Your task to perform on an android device: toggle notifications settings in the gmail app Image 0: 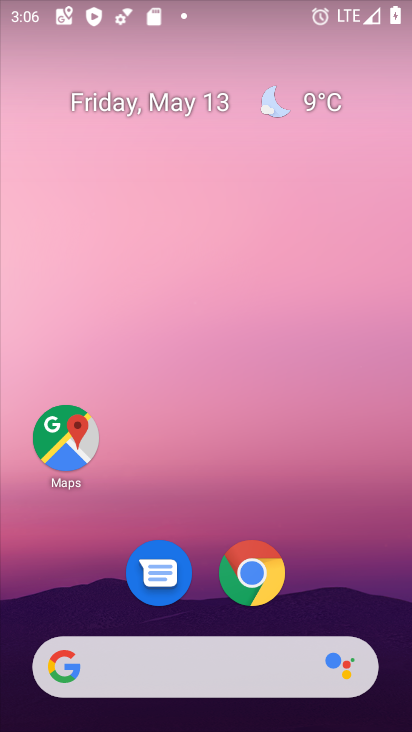
Step 0: drag from (343, 577) to (269, 174)
Your task to perform on an android device: toggle notifications settings in the gmail app Image 1: 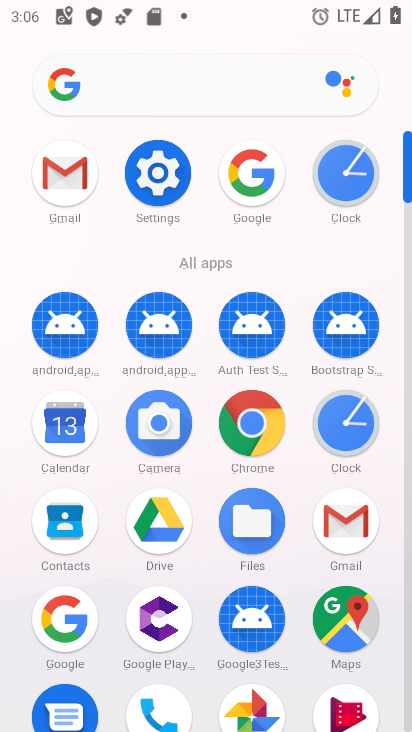
Step 1: drag from (297, 490) to (307, 320)
Your task to perform on an android device: toggle notifications settings in the gmail app Image 2: 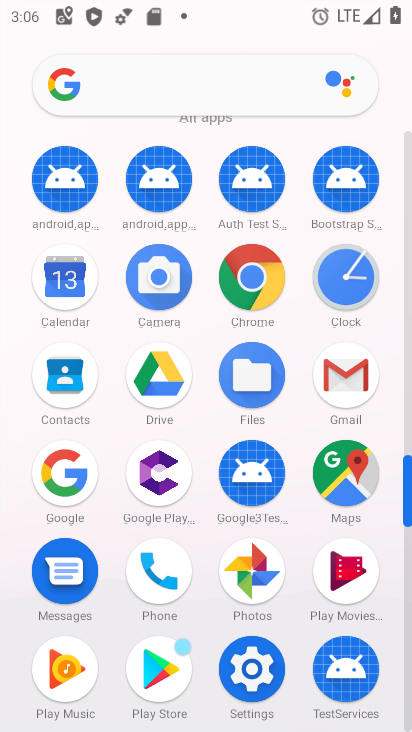
Step 2: click (345, 379)
Your task to perform on an android device: toggle notifications settings in the gmail app Image 3: 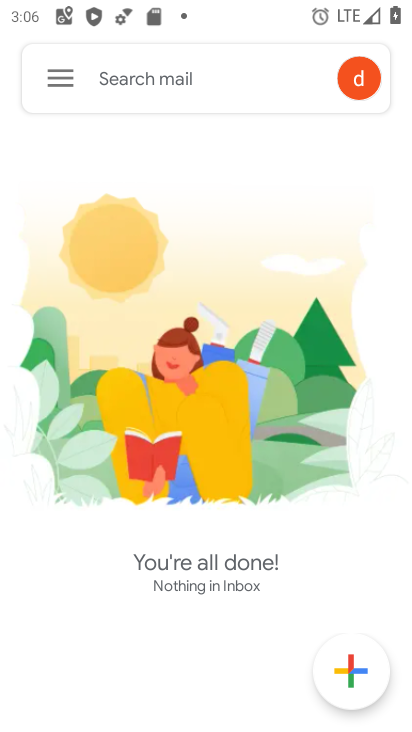
Step 3: click (64, 78)
Your task to perform on an android device: toggle notifications settings in the gmail app Image 4: 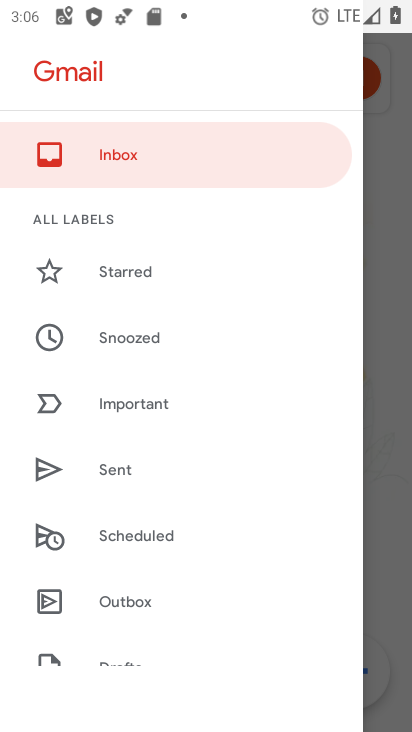
Step 4: drag from (137, 442) to (196, 331)
Your task to perform on an android device: toggle notifications settings in the gmail app Image 5: 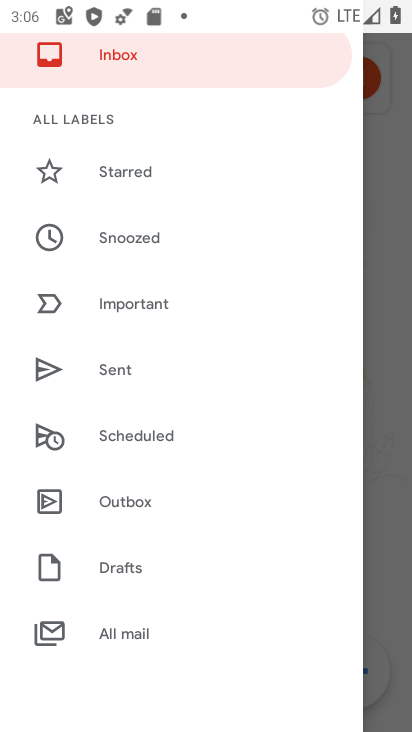
Step 5: drag from (129, 467) to (209, 358)
Your task to perform on an android device: toggle notifications settings in the gmail app Image 6: 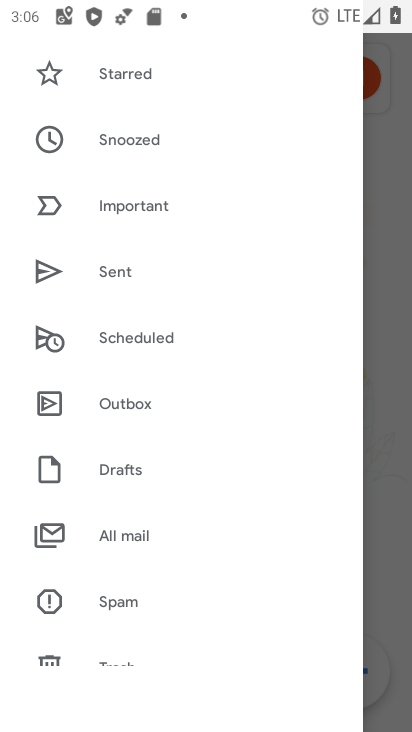
Step 6: drag from (129, 433) to (157, 348)
Your task to perform on an android device: toggle notifications settings in the gmail app Image 7: 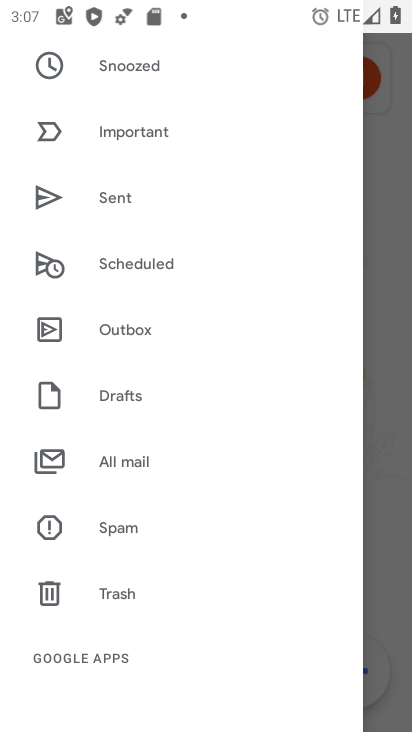
Step 7: drag from (113, 428) to (159, 353)
Your task to perform on an android device: toggle notifications settings in the gmail app Image 8: 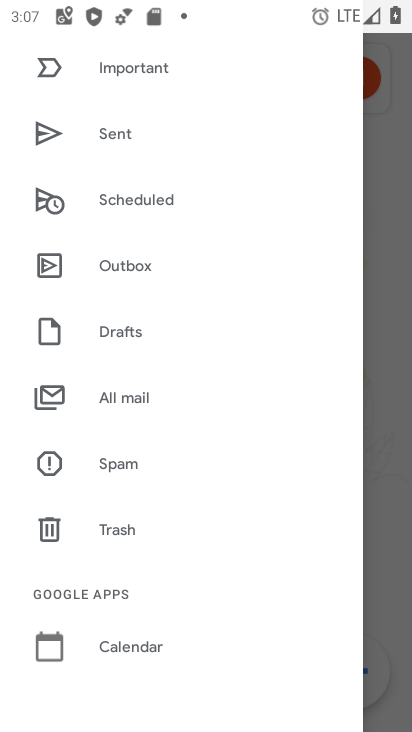
Step 8: drag from (77, 506) to (171, 353)
Your task to perform on an android device: toggle notifications settings in the gmail app Image 9: 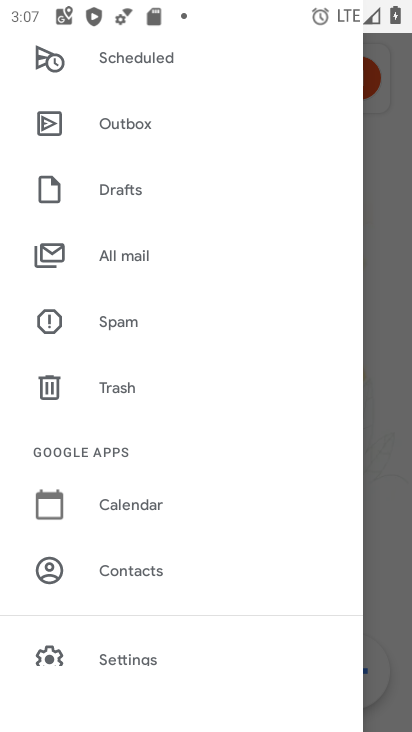
Step 9: drag from (100, 543) to (181, 391)
Your task to perform on an android device: toggle notifications settings in the gmail app Image 10: 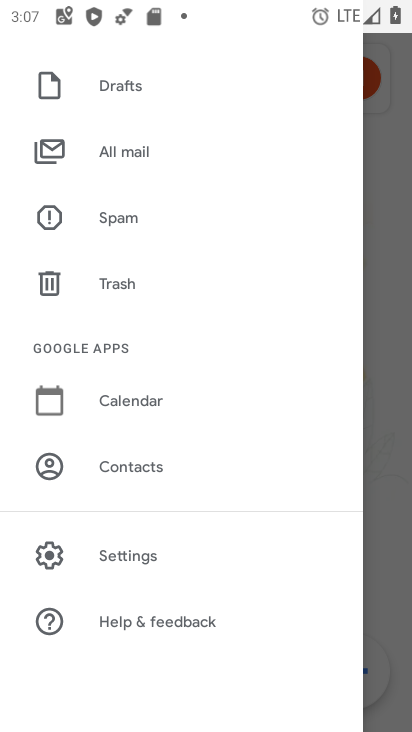
Step 10: click (137, 548)
Your task to perform on an android device: toggle notifications settings in the gmail app Image 11: 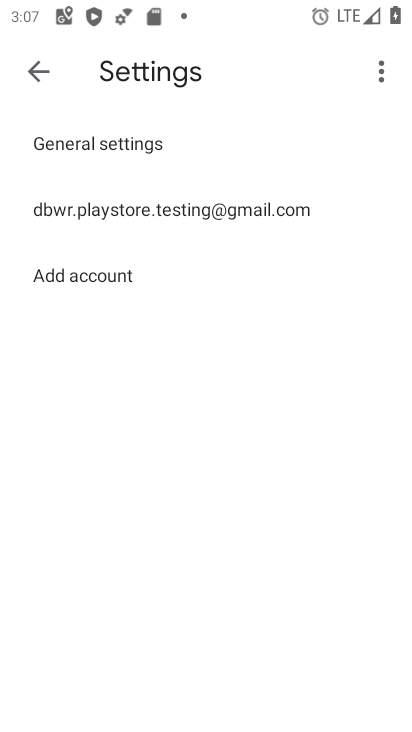
Step 11: click (174, 207)
Your task to perform on an android device: toggle notifications settings in the gmail app Image 12: 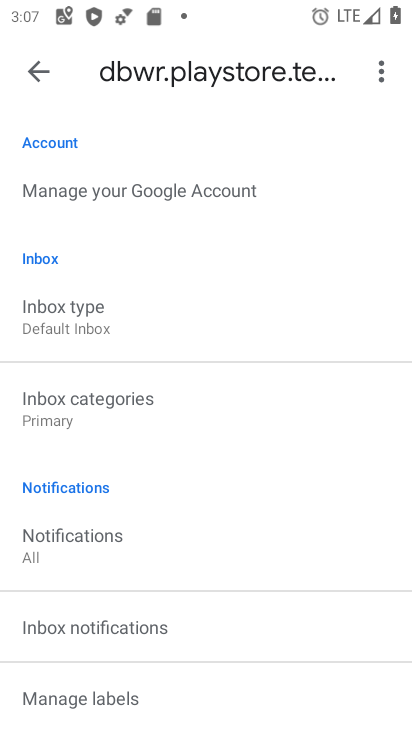
Step 12: drag from (147, 480) to (196, 347)
Your task to perform on an android device: toggle notifications settings in the gmail app Image 13: 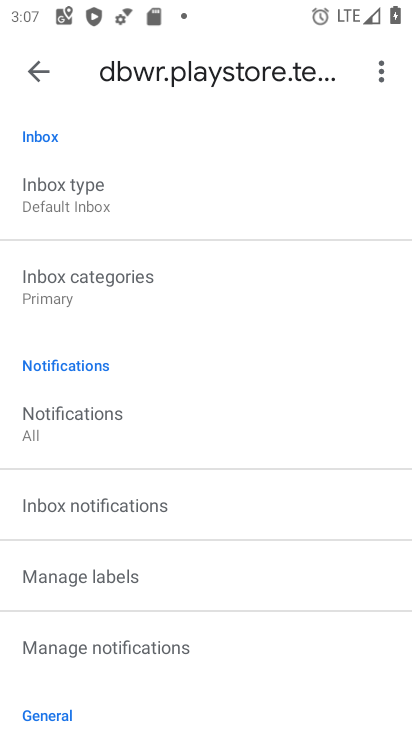
Step 13: drag from (149, 587) to (208, 393)
Your task to perform on an android device: toggle notifications settings in the gmail app Image 14: 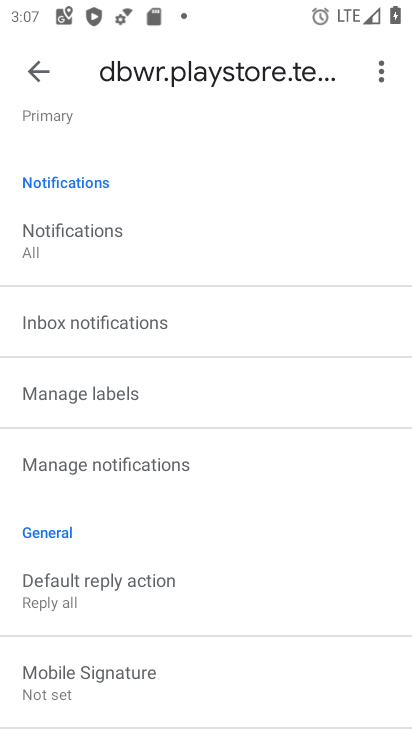
Step 14: click (124, 455)
Your task to perform on an android device: toggle notifications settings in the gmail app Image 15: 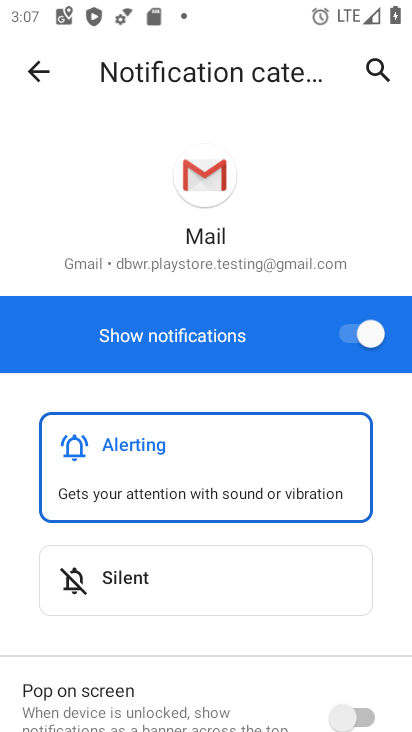
Step 15: click (365, 334)
Your task to perform on an android device: toggle notifications settings in the gmail app Image 16: 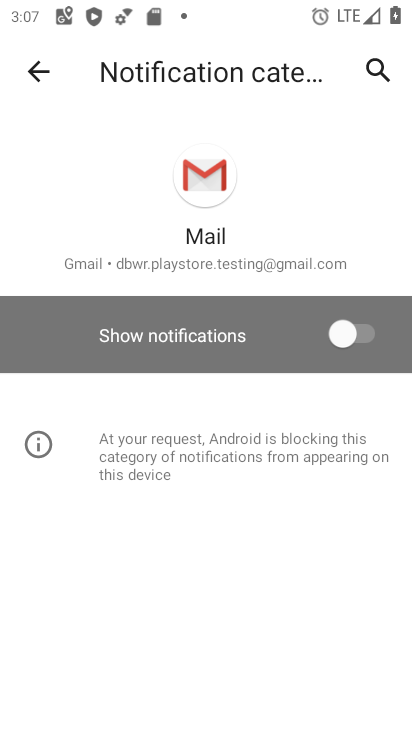
Step 16: task complete